Your task to perform on an android device: set an alarm Image 0: 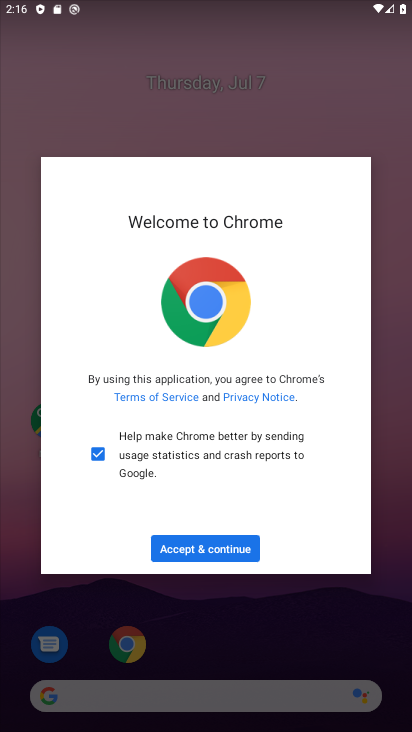
Step 0: click (234, 543)
Your task to perform on an android device: set an alarm Image 1: 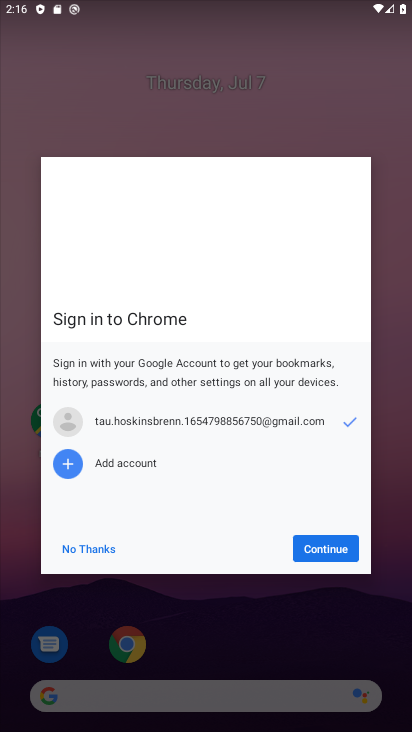
Step 1: click (313, 550)
Your task to perform on an android device: set an alarm Image 2: 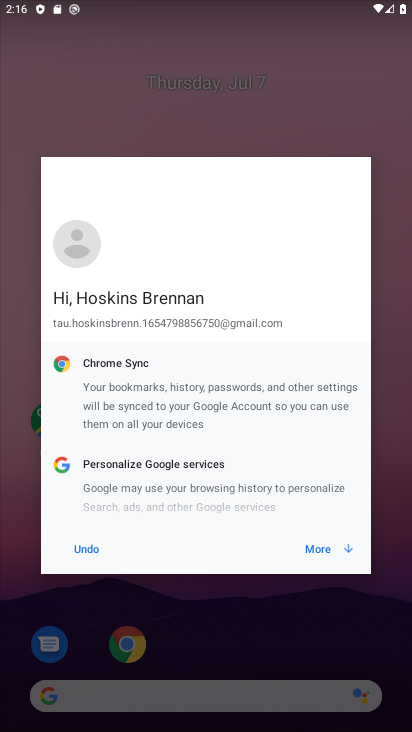
Step 2: click (314, 541)
Your task to perform on an android device: set an alarm Image 3: 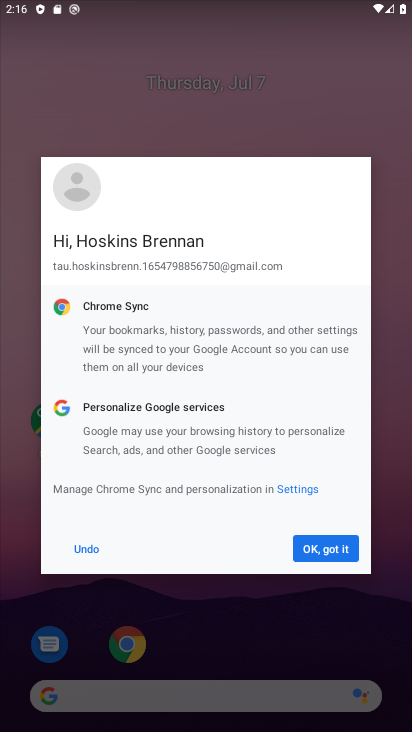
Step 3: click (314, 541)
Your task to perform on an android device: set an alarm Image 4: 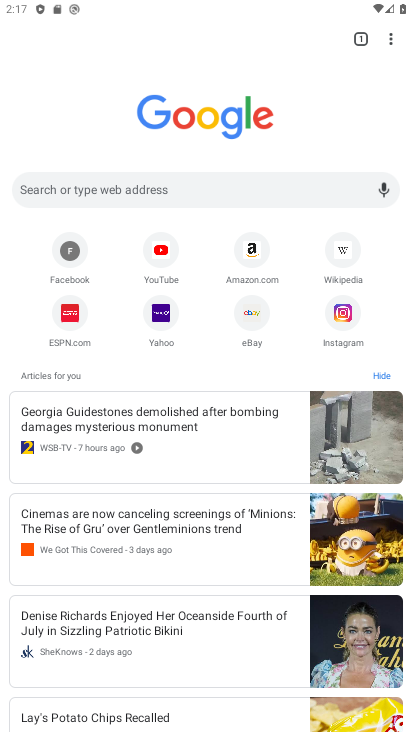
Step 4: press home button
Your task to perform on an android device: set an alarm Image 5: 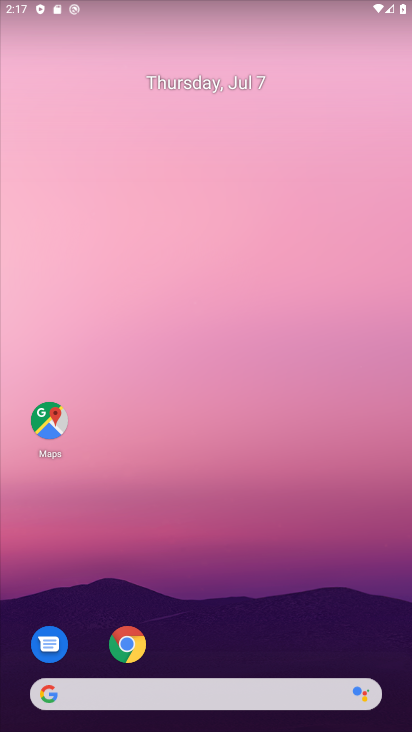
Step 5: drag from (247, 593) to (213, 33)
Your task to perform on an android device: set an alarm Image 6: 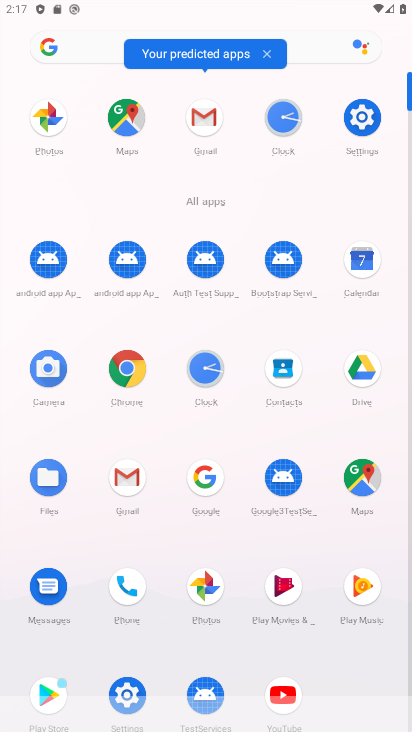
Step 6: click (209, 359)
Your task to perform on an android device: set an alarm Image 7: 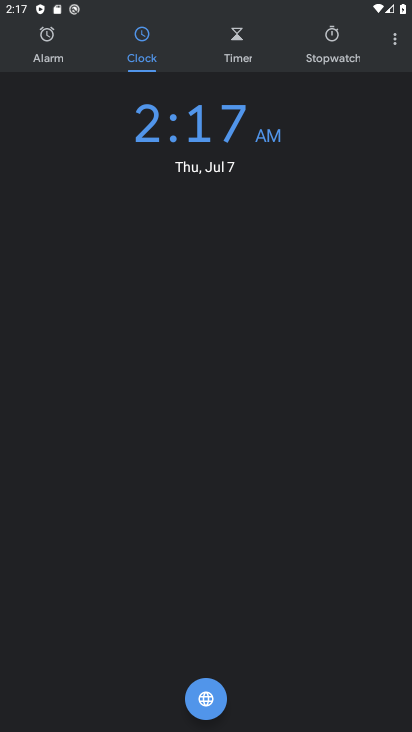
Step 7: click (67, 61)
Your task to perform on an android device: set an alarm Image 8: 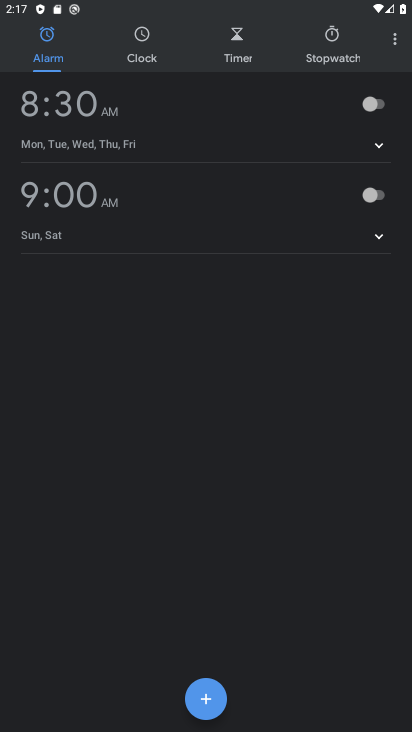
Step 8: click (373, 100)
Your task to perform on an android device: set an alarm Image 9: 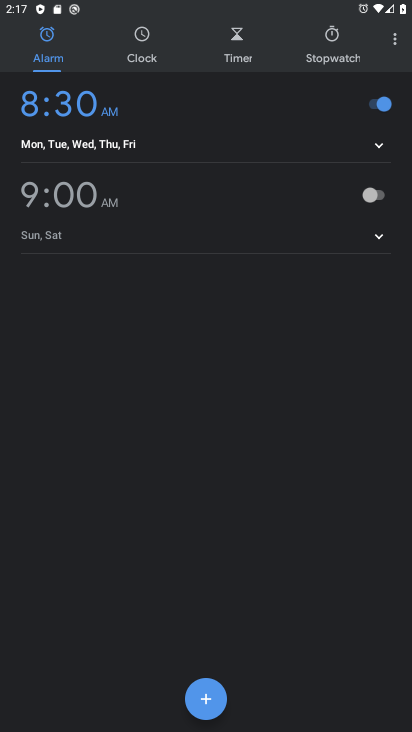
Step 9: task complete